Your task to perform on an android device: check storage Image 0: 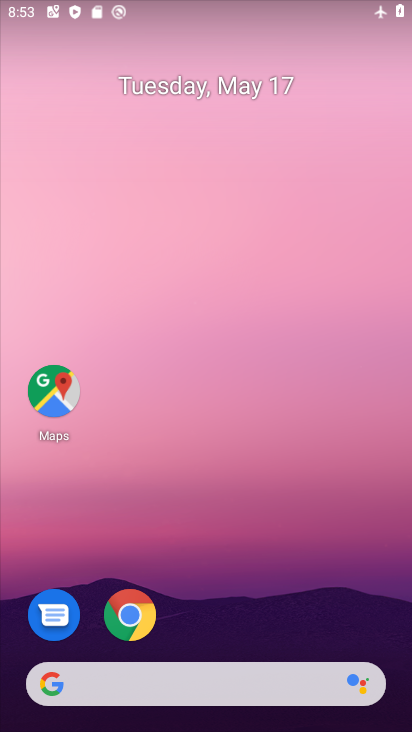
Step 0: drag from (310, 555) to (350, 131)
Your task to perform on an android device: check storage Image 1: 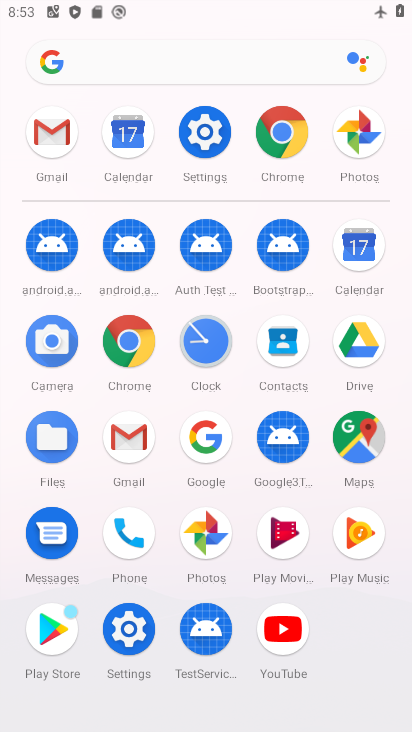
Step 1: click (196, 126)
Your task to perform on an android device: check storage Image 2: 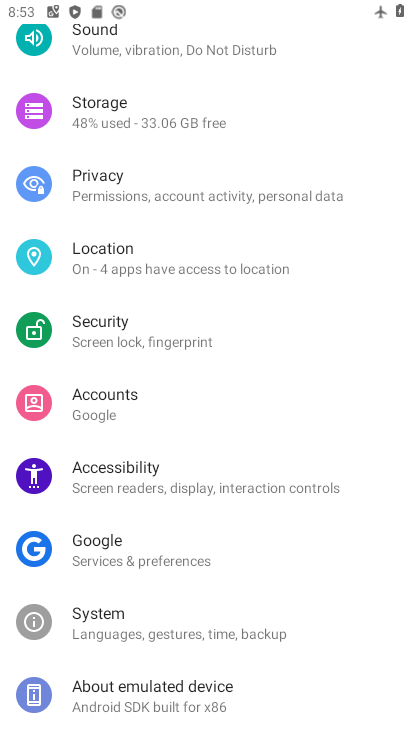
Step 2: drag from (151, 211) to (184, 339)
Your task to perform on an android device: check storage Image 3: 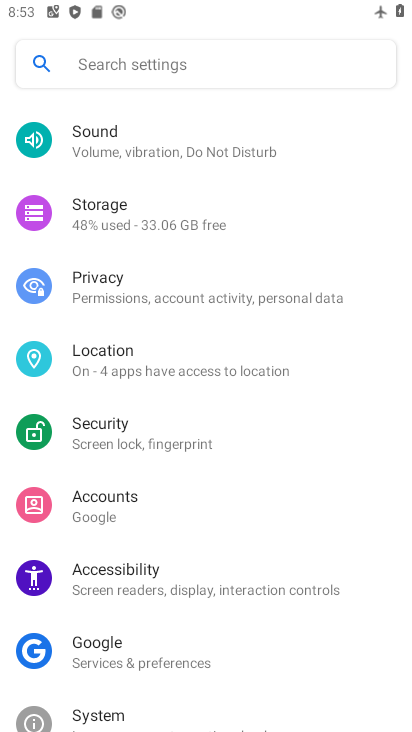
Step 3: click (136, 213)
Your task to perform on an android device: check storage Image 4: 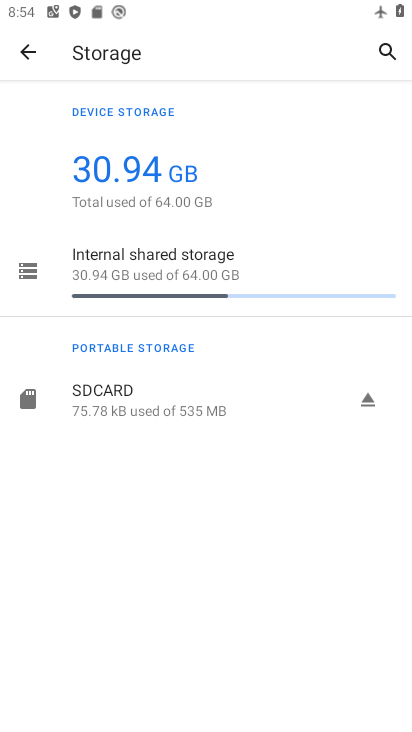
Step 4: task complete